Your task to perform on an android device: Go to Amazon Image 0: 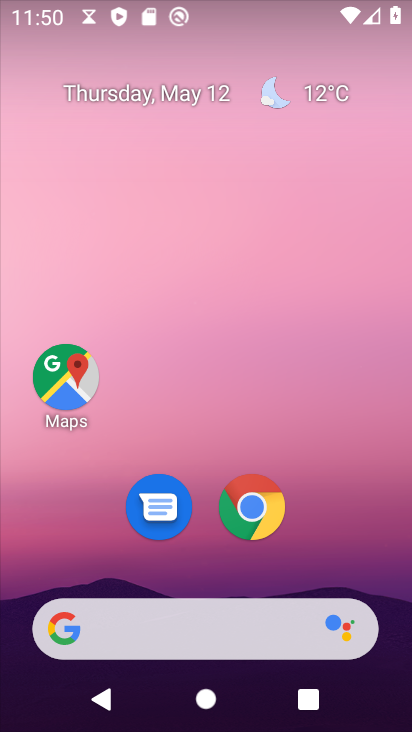
Step 0: click (255, 502)
Your task to perform on an android device: Go to Amazon Image 1: 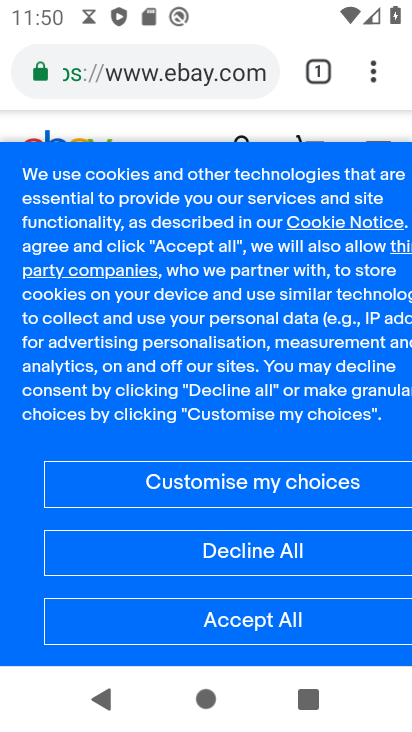
Step 1: click (213, 78)
Your task to perform on an android device: Go to Amazon Image 2: 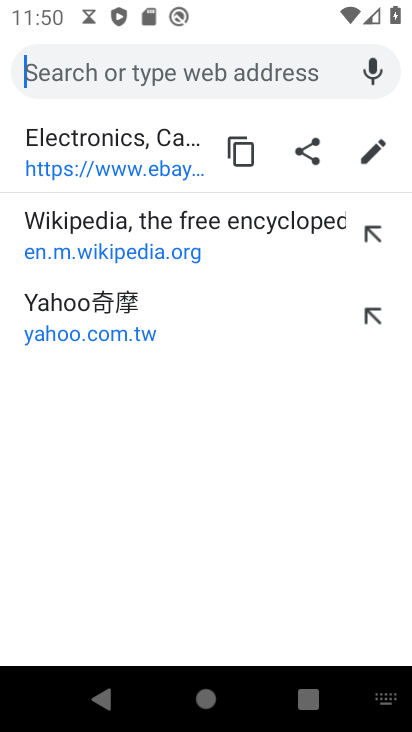
Step 2: type "Amazon"
Your task to perform on an android device: Go to Amazon Image 3: 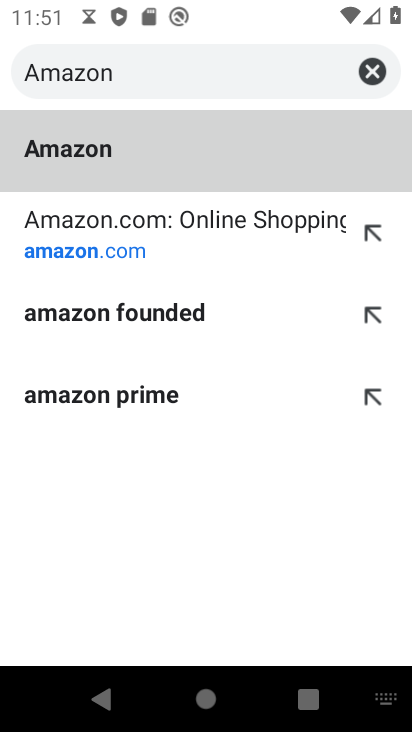
Step 3: click (111, 172)
Your task to perform on an android device: Go to Amazon Image 4: 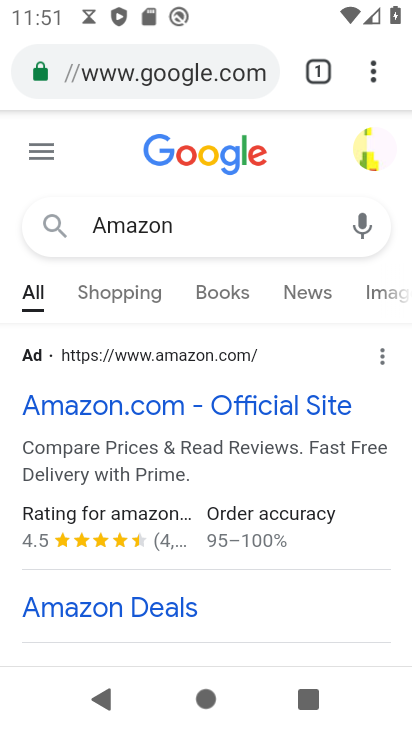
Step 4: click (116, 415)
Your task to perform on an android device: Go to Amazon Image 5: 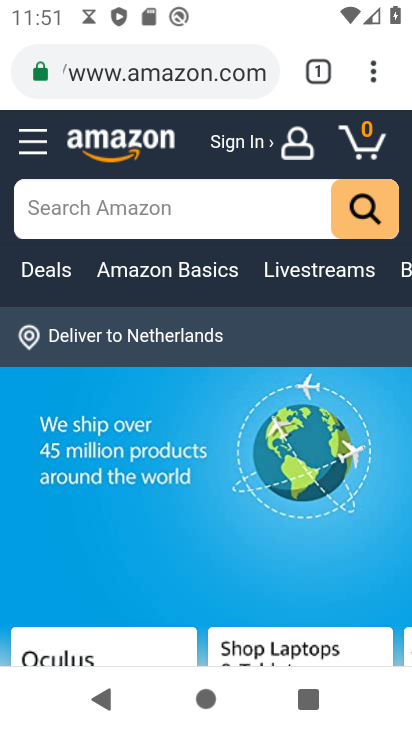
Step 5: task complete